Your task to perform on an android device: Open the calendar app, open the side menu, and click the "Day" option Image 0: 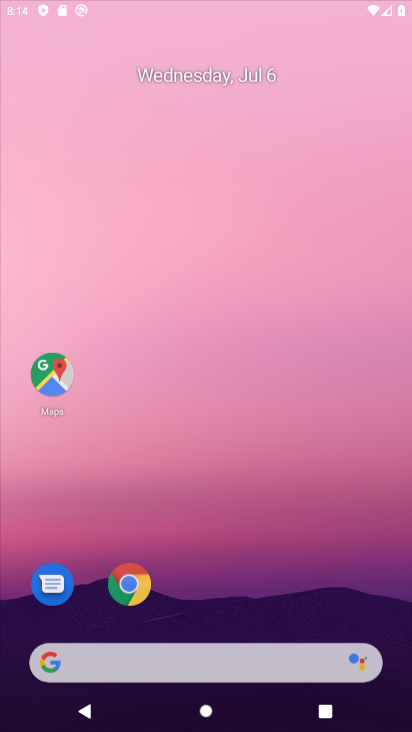
Step 0: click (295, 251)
Your task to perform on an android device: Open the calendar app, open the side menu, and click the "Day" option Image 1: 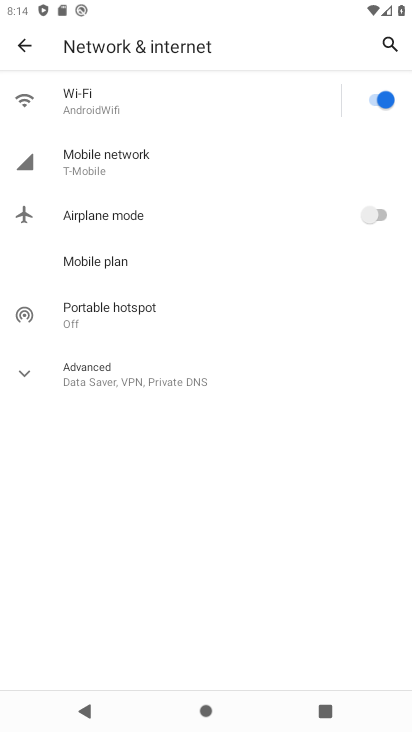
Step 1: press home button
Your task to perform on an android device: Open the calendar app, open the side menu, and click the "Day" option Image 2: 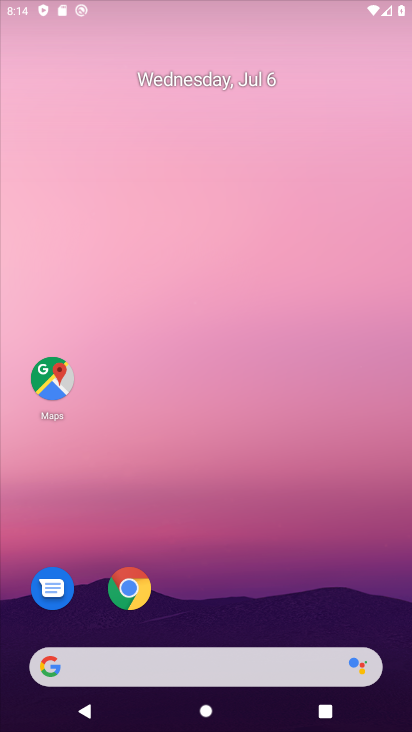
Step 2: drag from (291, 605) to (298, 256)
Your task to perform on an android device: Open the calendar app, open the side menu, and click the "Day" option Image 3: 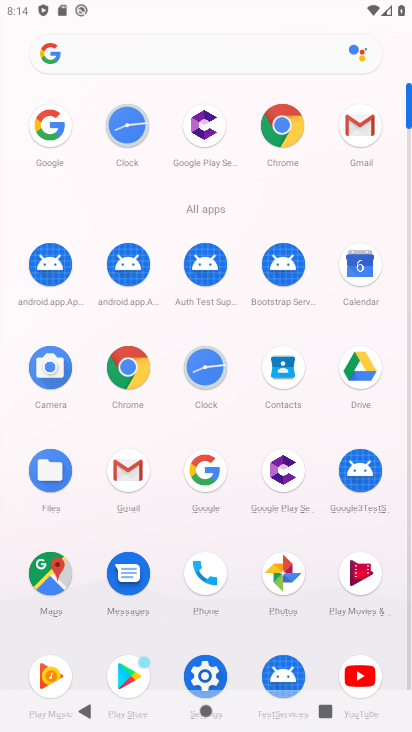
Step 3: click (363, 271)
Your task to perform on an android device: Open the calendar app, open the side menu, and click the "Day" option Image 4: 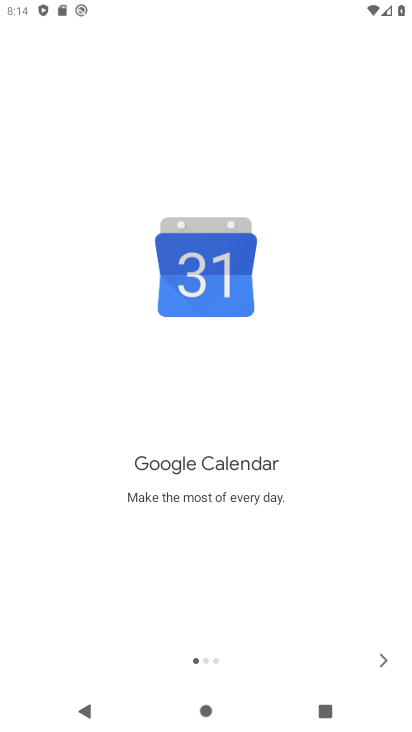
Step 4: click (377, 649)
Your task to perform on an android device: Open the calendar app, open the side menu, and click the "Day" option Image 5: 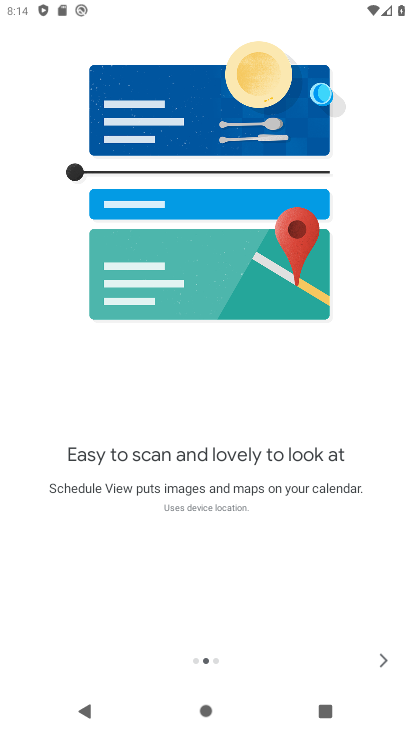
Step 5: click (391, 666)
Your task to perform on an android device: Open the calendar app, open the side menu, and click the "Day" option Image 6: 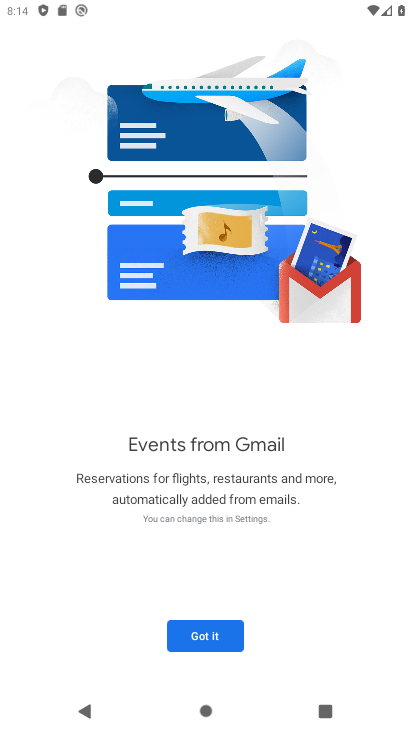
Step 6: click (229, 630)
Your task to perform on an android device: Open the calendar app, open the side menu, and click the "Day" option Image 7: 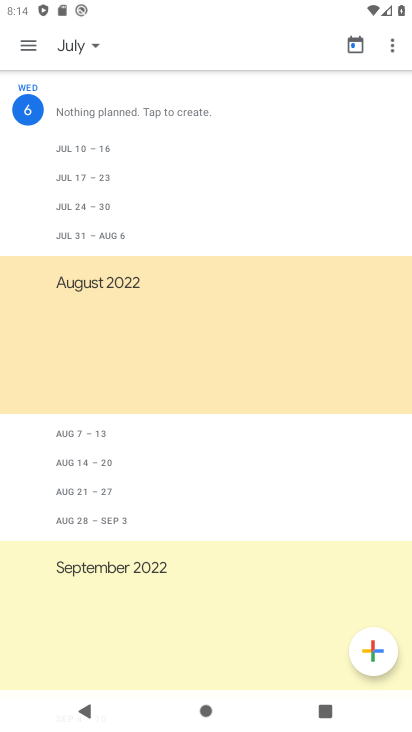
Step 7: click (27, 46)
Your task to perform on an android device: Open the calendar app, open the side menu, and click the "Day" option Image 8: 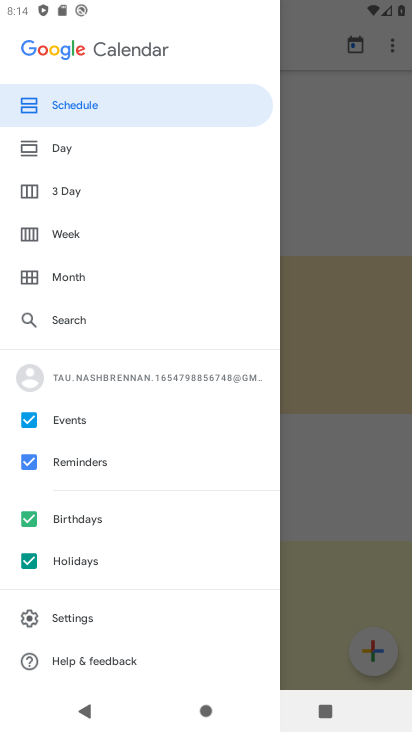
Step 8: click (80, 147)
Your task to perform on an android device: Open the calendar app, open the side menu, and click the "Day" option Image 9: 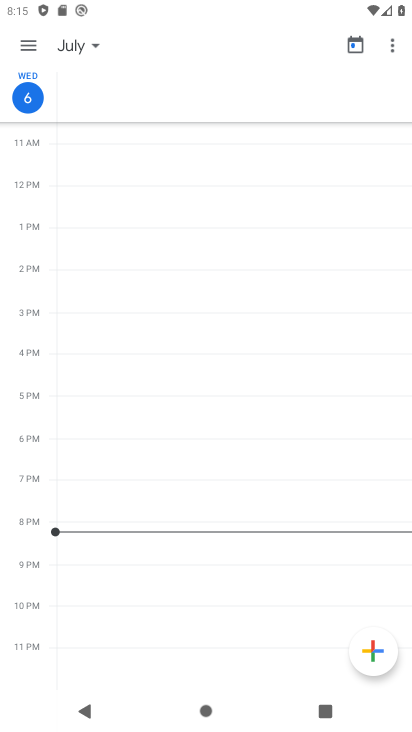
Step 9: task complete